Your task to perform on an android device: Find coffee shops on Maps Image 0: 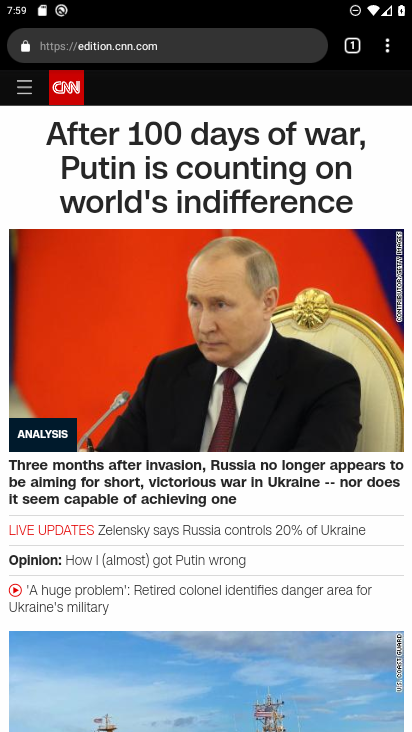
Step 0: press home button
Your task to perform on an android device: Find coffee shops on Maps Image 1: 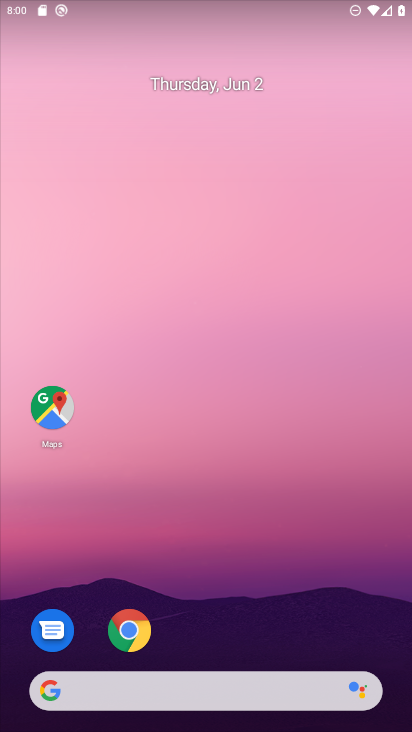
Step 1: click (46, 414)
Your task to perform on an android device: Find coffee shops on Maps Image 2: 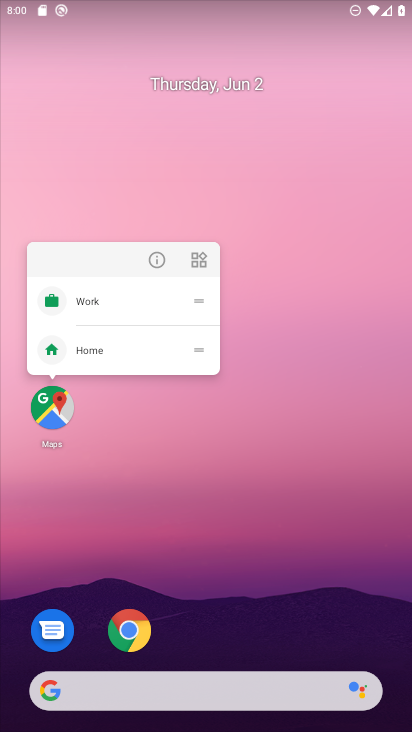
Step 2: click (63, 410)
Your task to perform on an android device: Find coffee shops on Maps Image 3: 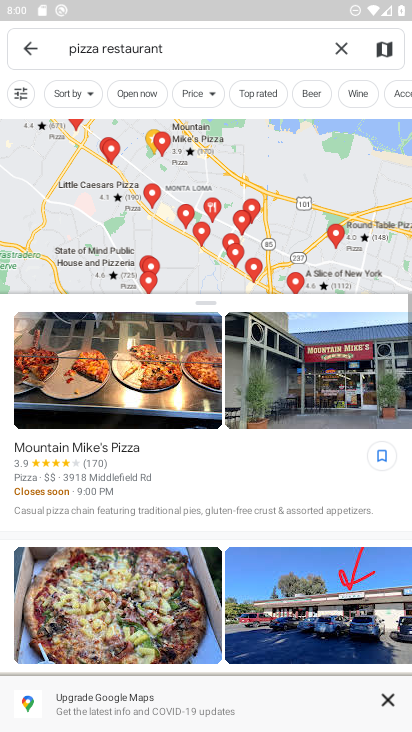
Step 3: click (345, 48)
Your task to perform on an android device: Find coffee shops on Maps Image 4: 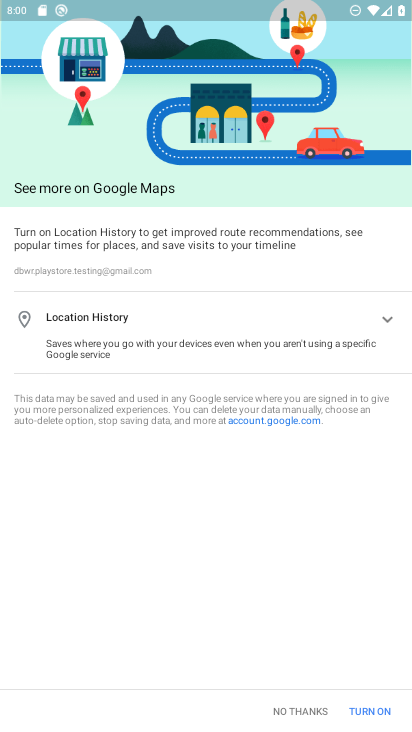
Step 4: click (306, 720)
Your task to perform on an android device: Find coffee shops on Maps Image 5: 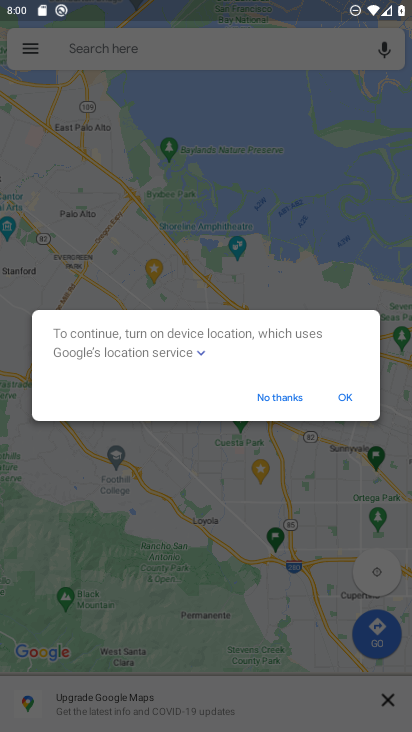
Step 5: click (343, 391)
Your task to perform on an android device: Find coffee shops on Maps Image 6: 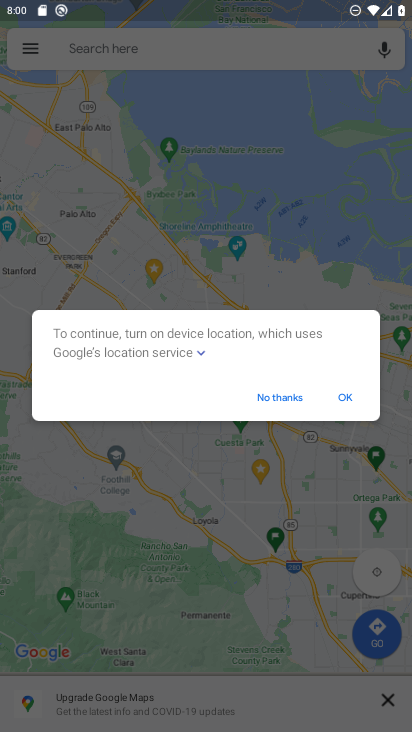
Step 6: click (291, 400)
Your task to perform on an android device: Find coffee shops on Maps Image 7: 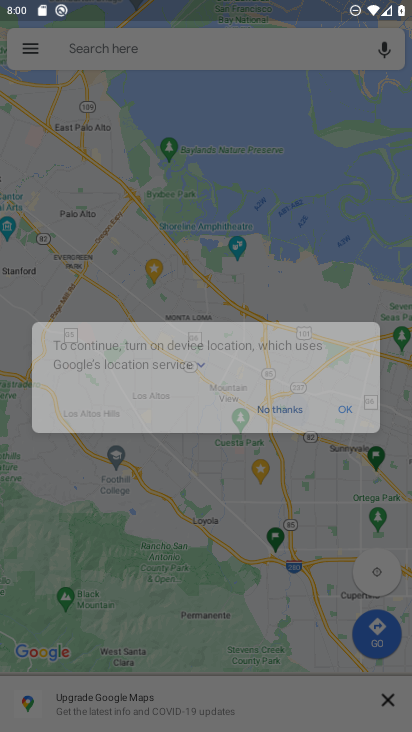
Step 7: click (293, 46)
Your task to perform on an android device: Find coffee shops on Maps Image 8: 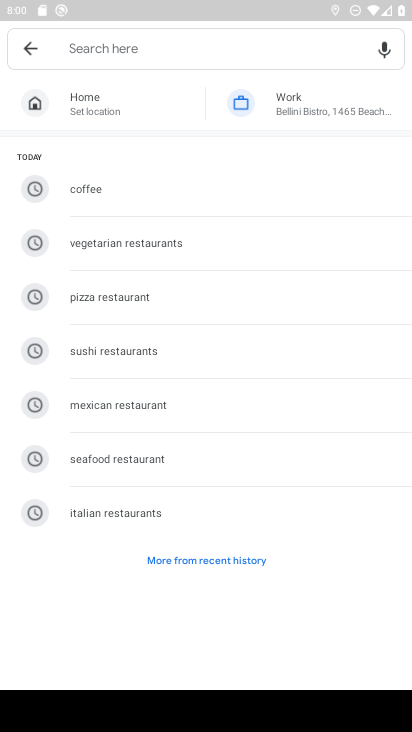
Step 8: type "coffee shops"
Your task to perform on an android device: Find coffee shops on Maps Image 9: 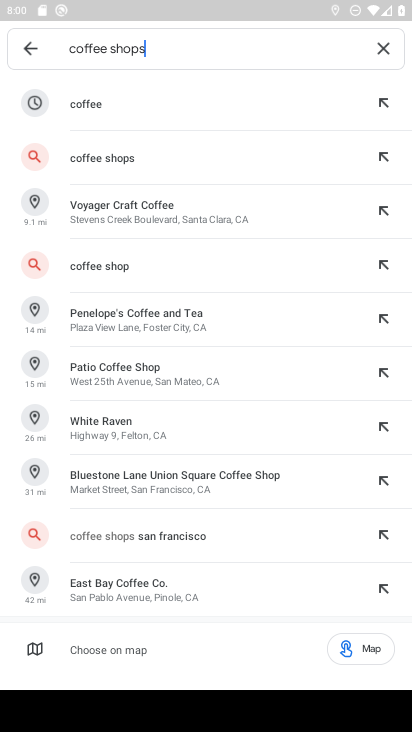
Step 9: click (136, 150)
Your task to perform on an android device: Find coffee shops on Maps Image 10: 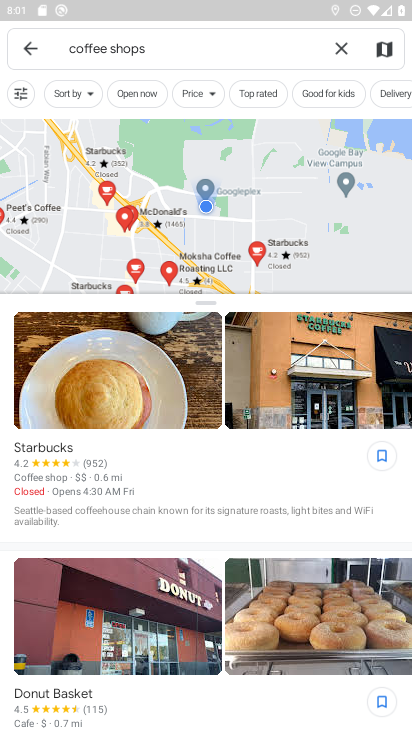
Step 10: task complete